Your task to perform on an android device: turn off picture-in-picture Image 0: 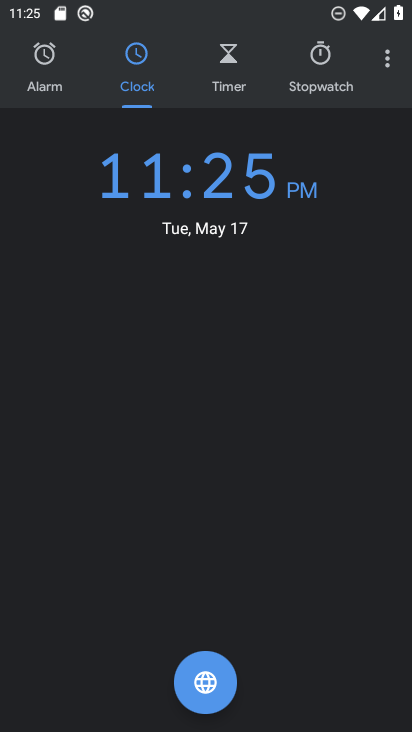
Step 0: press back button
Your task to perform on an android device: turn off picture-in-picture Image 1: 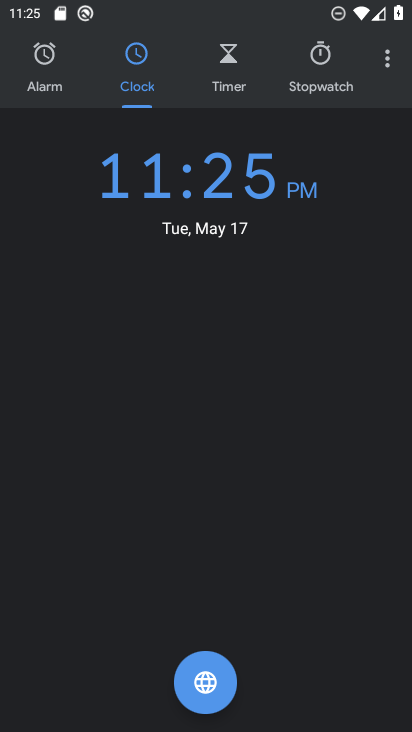
Step 1: press back button
Your task to perform on an android device: turn off picture-in-picture Image 2: 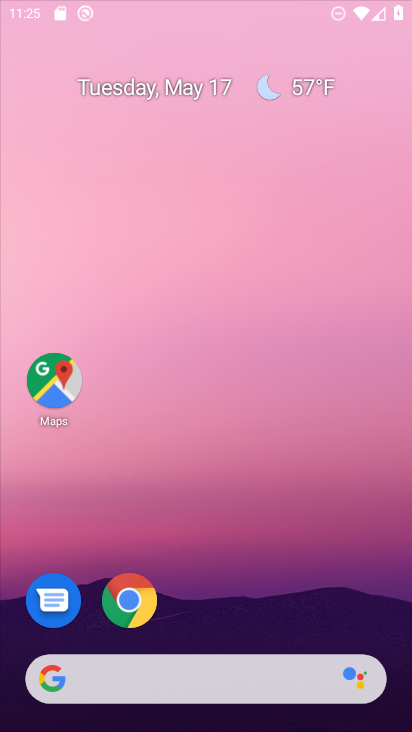
Step 2: press back button
Your task to perform on an android device: turn off picture-in-picture Image 3: 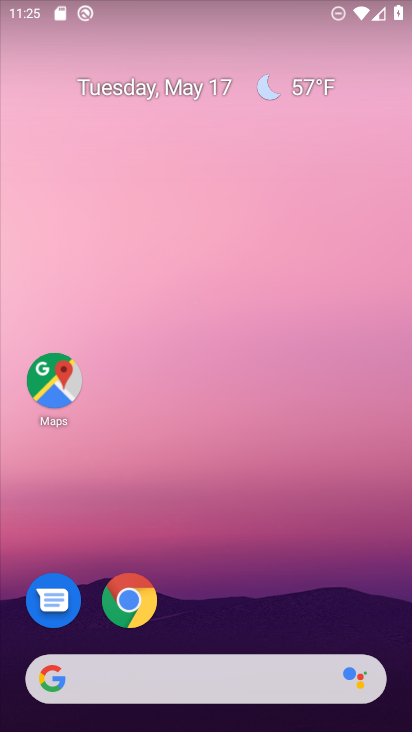
Step 3: drag from (203, 590) to (92, 78)
Your task to perform on an android device: turn off picture-in-picture Image 4: 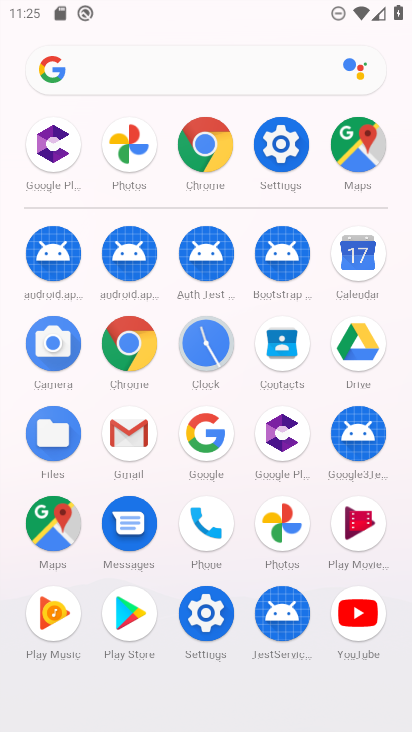
Step 4: click (199, 151)
Your task to perform on an android device: turn off picture-in-picture Image 5: 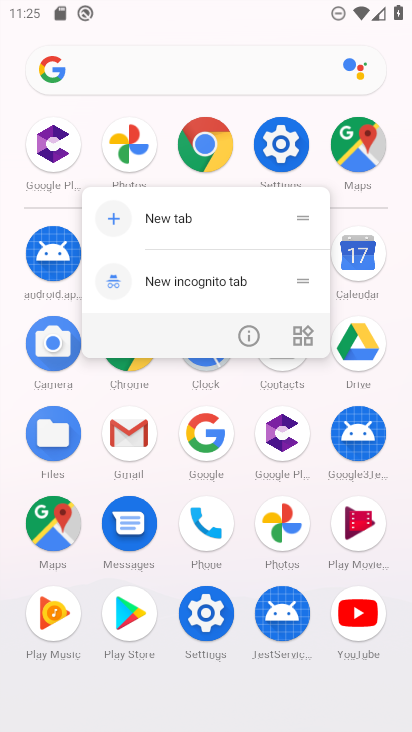
Step 5: click (241, 339)
Your task to perform on an android device: turn off picture-in-picture Image 6: 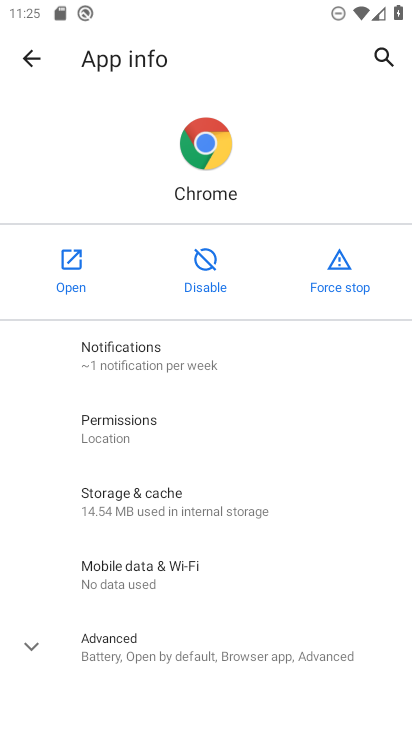
Step 6: drag from (220, 583) to (124, 256)
Your task to perform on an android device: turn off picture-in-picture Image 7: 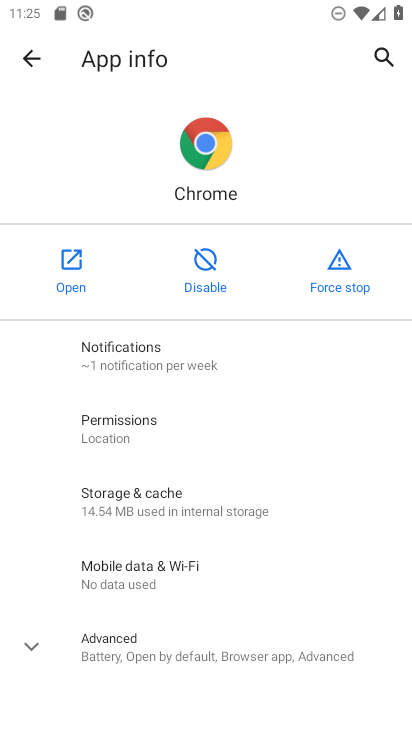
Step 7: click (112, 643)
Your task to perform on an android device: turn off picture-in-picture Image 8: 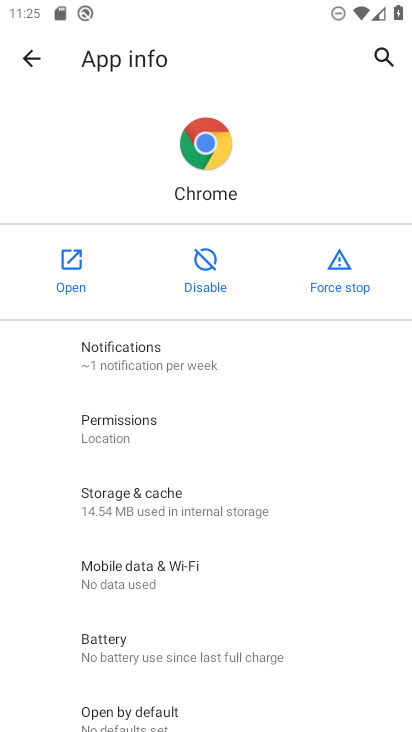
Step 8: drag from (104, 508) to (32, 157)
Your task to perform on an android device: turn off picture-in-picture Image 9: 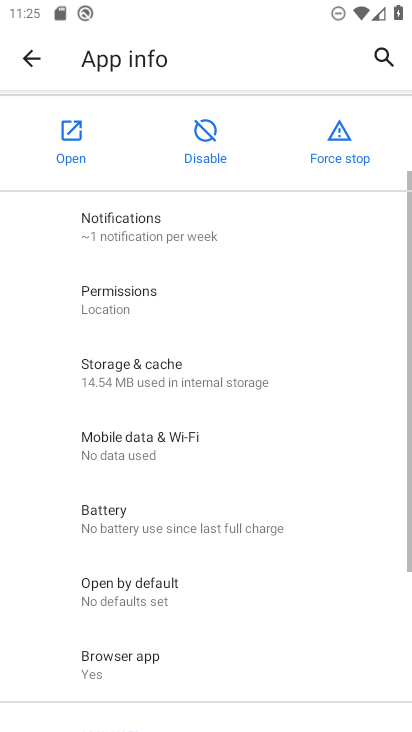
Step 9: drag from (192, 481) to (192, 177)
Your task to perform on an android device: turn off picture-in-picture Image 10: 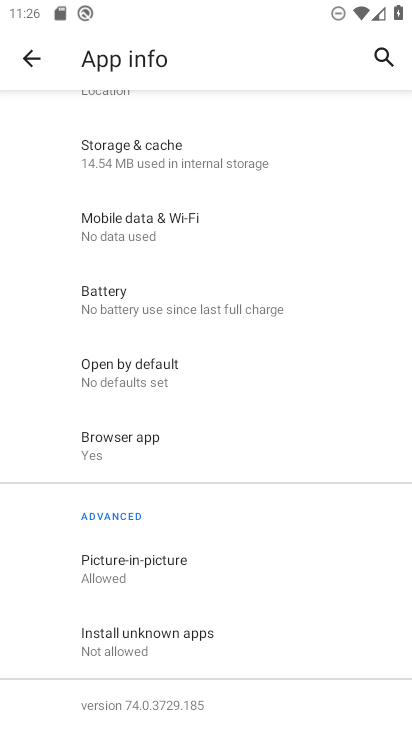
Step 10: click (116, 566)
Your task to perform on an android device: turn off picture-in-picture Image 11: 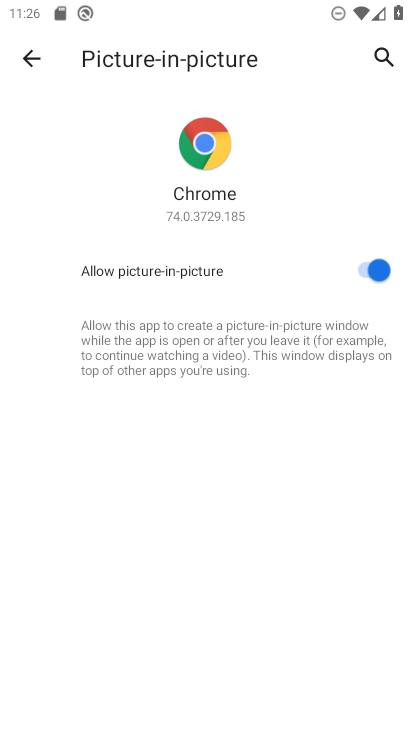
Step 11: click (376, 267)
Your task to perform on an android device: turn off picture-in-picture Image 12: 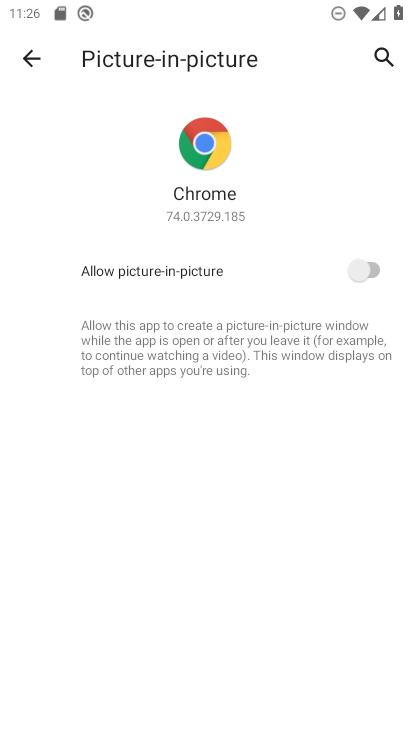
Step 12: task complete